Your task to perform on an android device: Show me popular games on the Play Store Image 0: 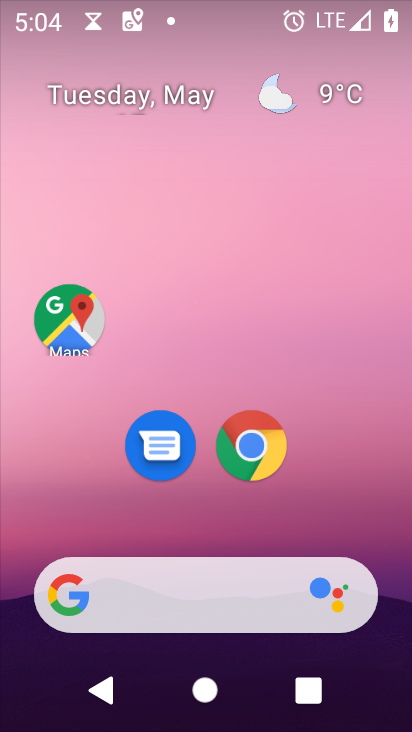
Step 0: drag from (284, 628) to (227, 47)
Your task to perform on an android device: Show me popular games on the Play Store Image 1: 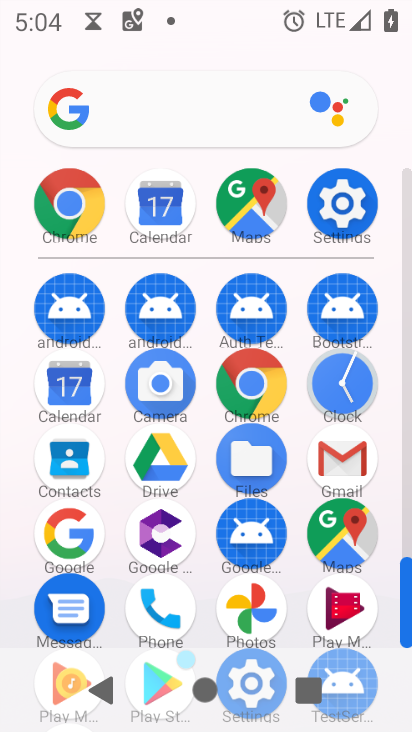
Step 1: drag from (216, 620) to (242, 206)
Your task to perform on an android device: Show me popular games on the Play Store Image 2: 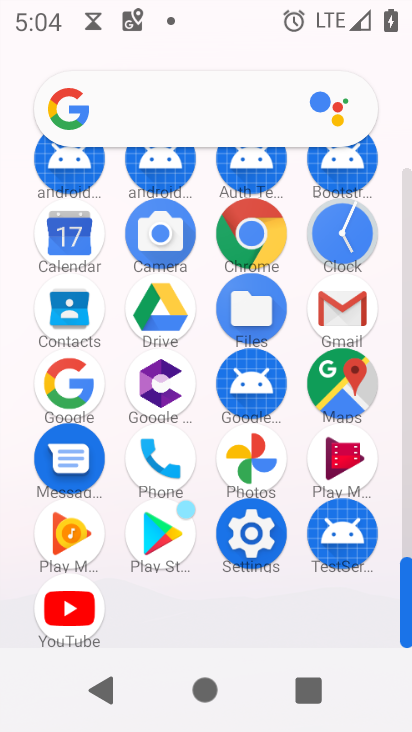
Step 2: click (188, 542)
Your task to perform on an android device: Show me popular games on the Play Store Image 3: 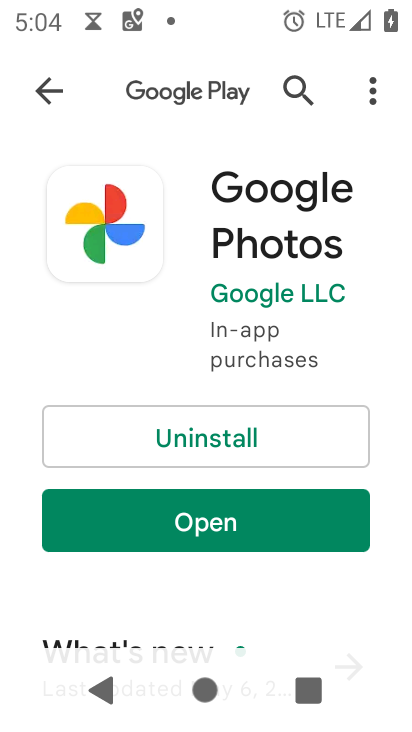
Step 3: press back button
Your task to perform on an android device: Show me popular games on the Play Store Image 4: 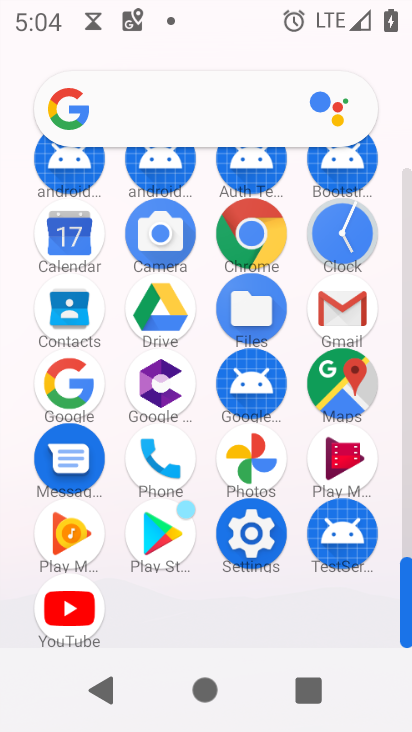
Step 4: click (165, 516)
Your task to perform on an android device: Show me popular games on the Play Store Image 5: 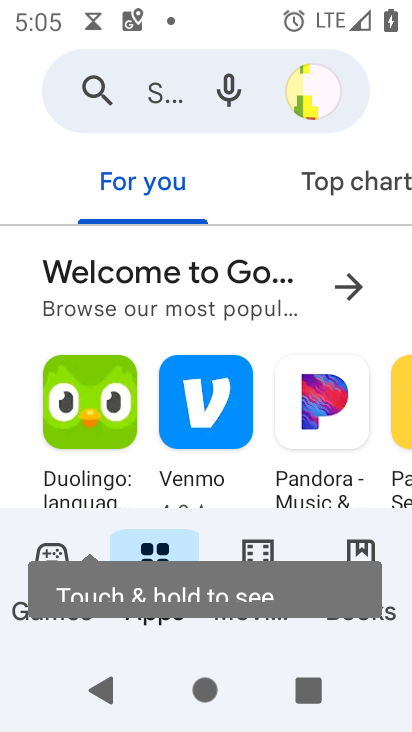
Step 5: drag from (284, 508) to (274, 110)
Your task to perform on an android device: Show me popular games on the Play Store Image 6: 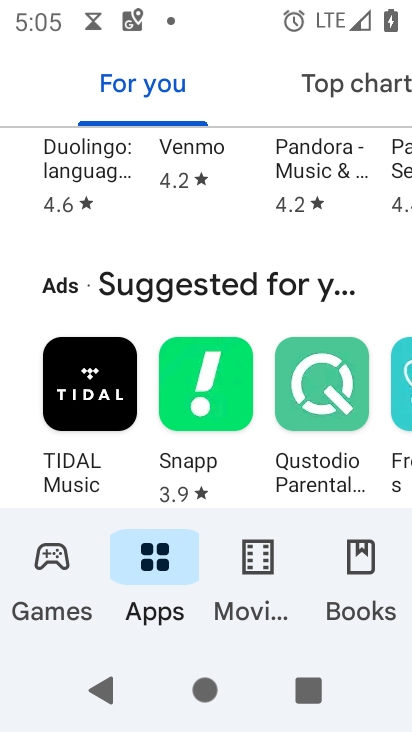
Step 6: drag from (297, 497) to (283, 87)
Your task to perform on an android device: Show me popular games on the Play Store Image 7: 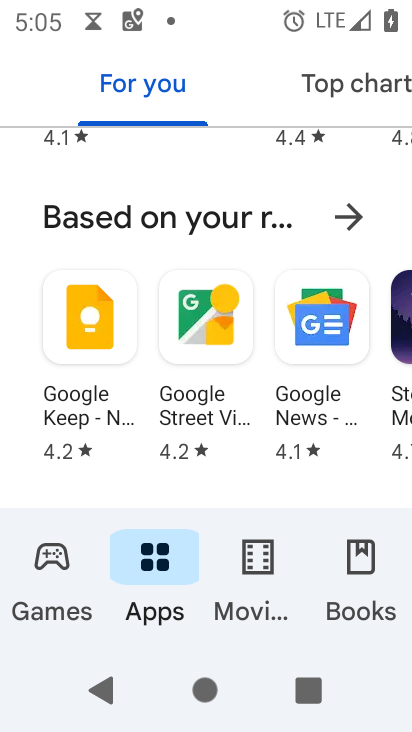
Step 7: drag from (282, 448) to (271, 95)
Your task to perform on an android device: Show me popular games on the Play Store Image 8: 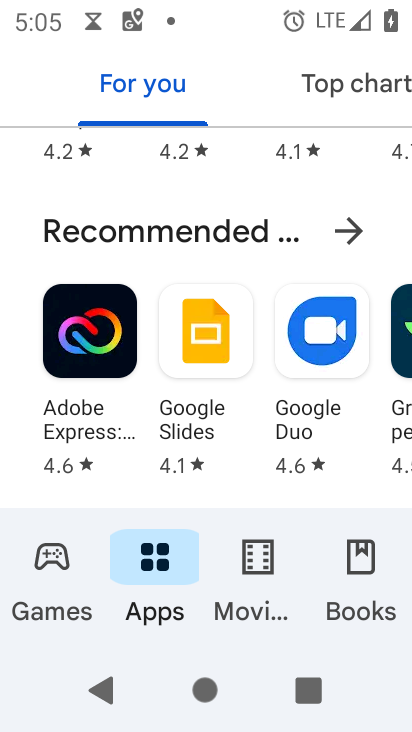
Step 8: drag from (286, 460) to (289, 117)
Your task to perform on an android device: Show me popular games on the Play Store Image 9: 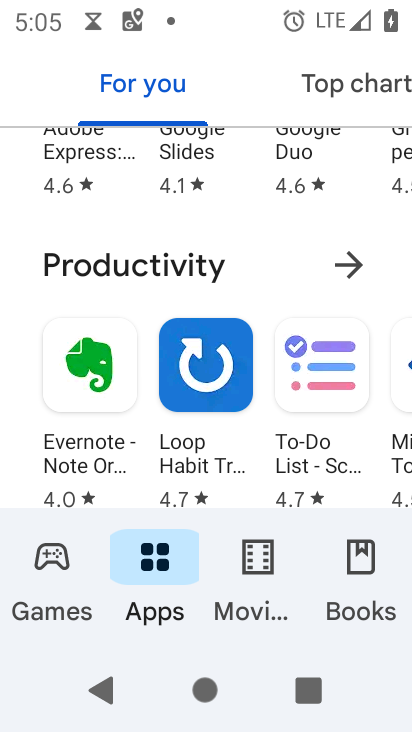
Step 9: click (54, 570)
Your task to perform on an android device: Show me popular games on the Play Store Image 10: 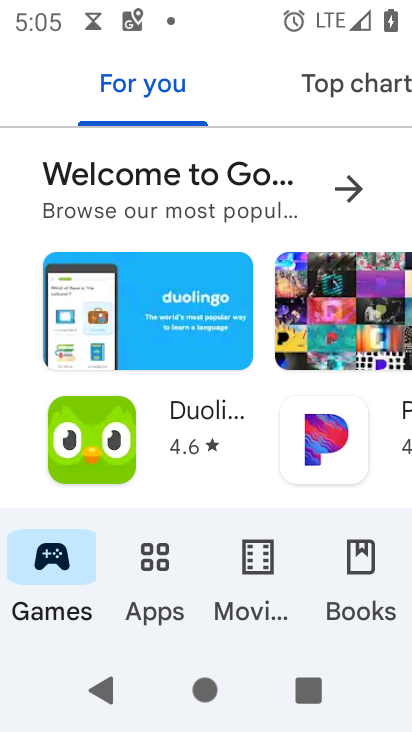
Step 10: drag from (242, 485) to (266, 89)
Your task to perform on an android device: Show me popular games on the Play Store Image 11: 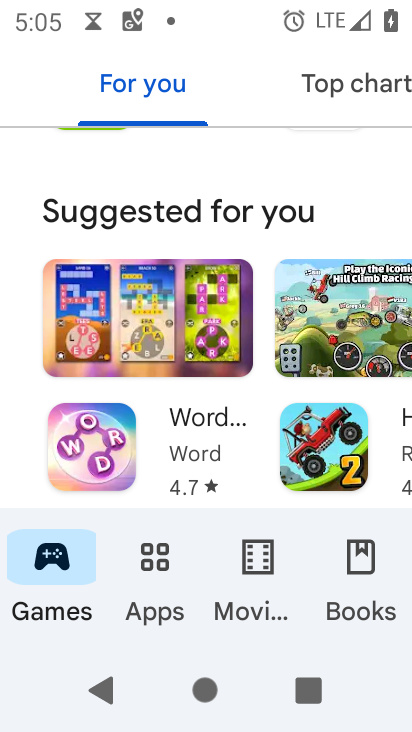
Step 11: drag from (241, 501) to (266, 164)
Your task to perform on an android device: Show me popular games on the Play Store Image 12: 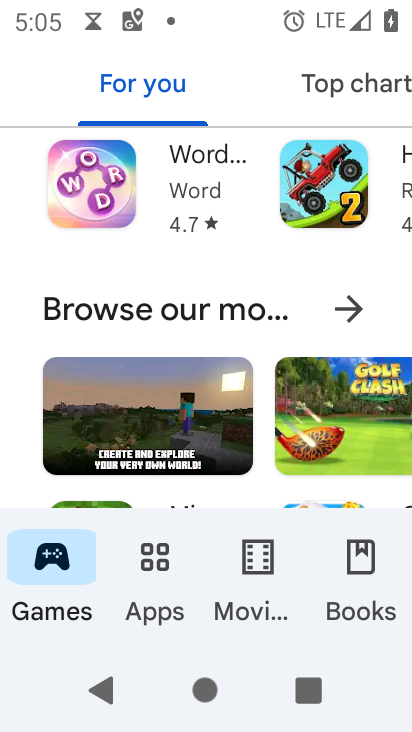
Step 12: drag from (286, 402) to (290, 154)
Your task to perform on an android device: Show me popular games on the Play Store Image 13: 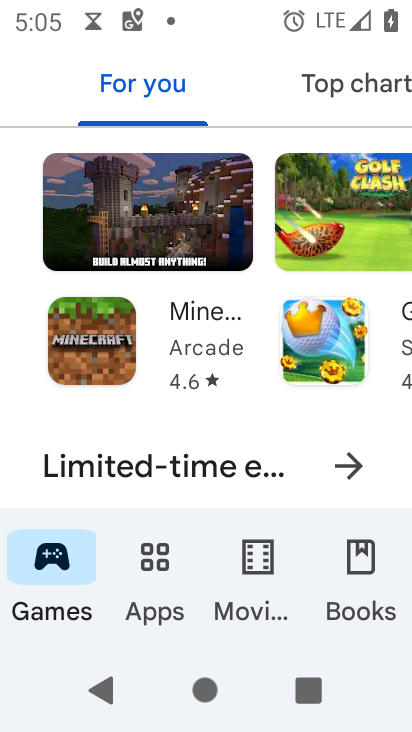
Step 13: drag from (266, 167) to (243, 377)
Your task to perform on an android device: Show me popular games on the Play Store Image 14: 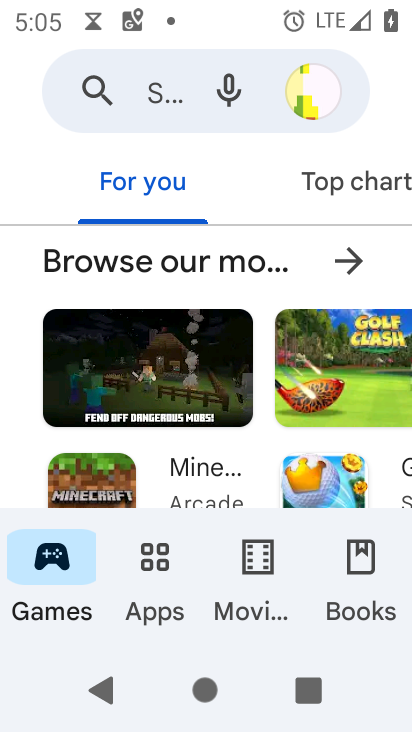
Step 14: click (347, 260)
Your task to perform on an android device: Show me popular games on the Play Store Image 15: 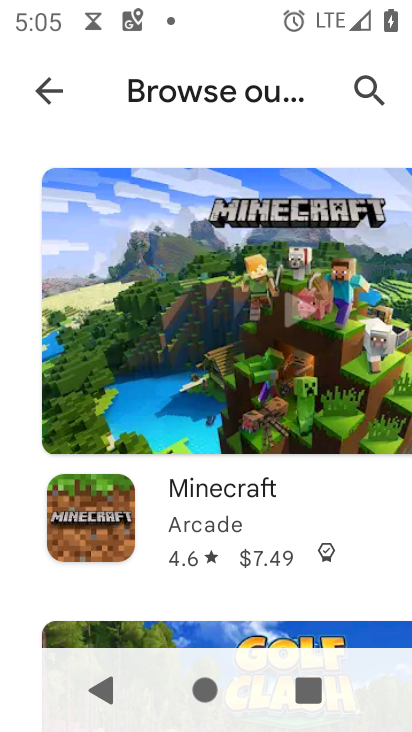
Step 15: task complete